Your task to perform on an android device: Open Chrome and go to settings Image 0: 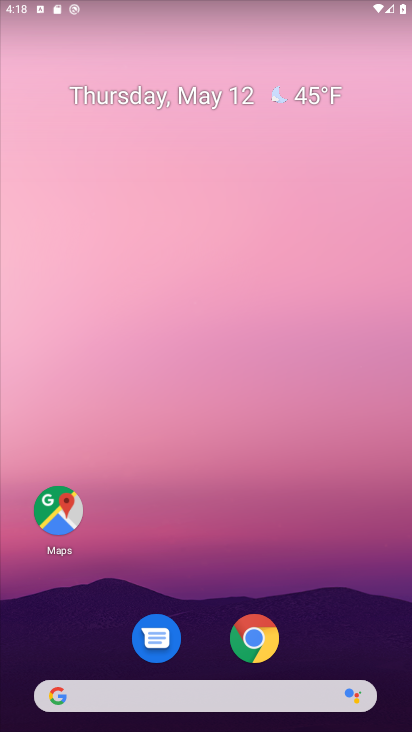
Step 0: click (262, 636)
Your task to perform on an android device: Open Chrome and go to settings Image 1: 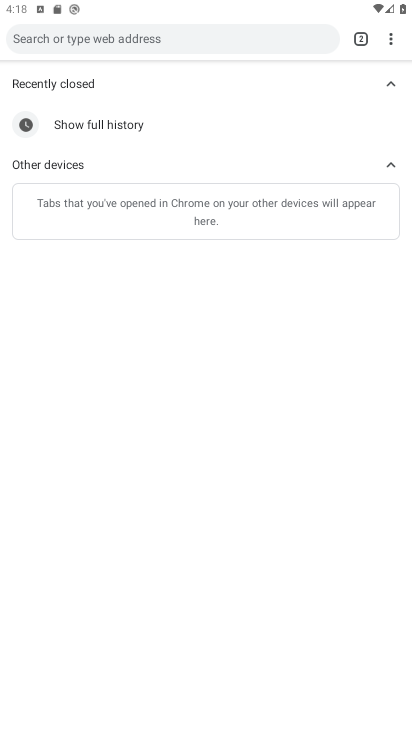
Step 1: click (390, 40)
Your task to perform on an android device: Open Chrome and go to settings Image 2: 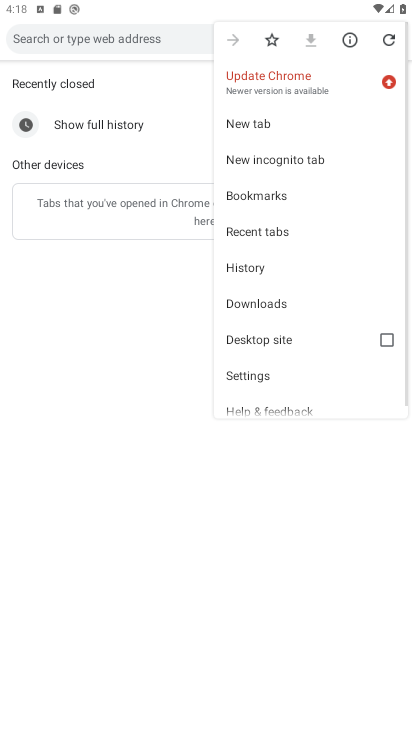
Step 2: click (264, 375)
Your task to perform on an android device: Open Chrome and go to settings Image 3: 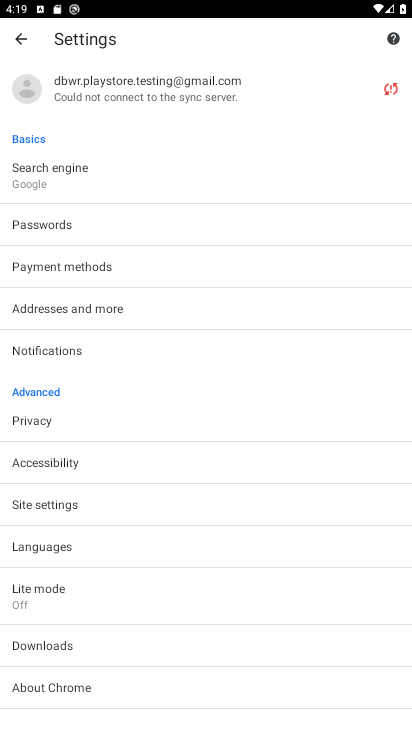
Step 3: task complete